Your task to perform on an android device: Open privacy settings Image 0: 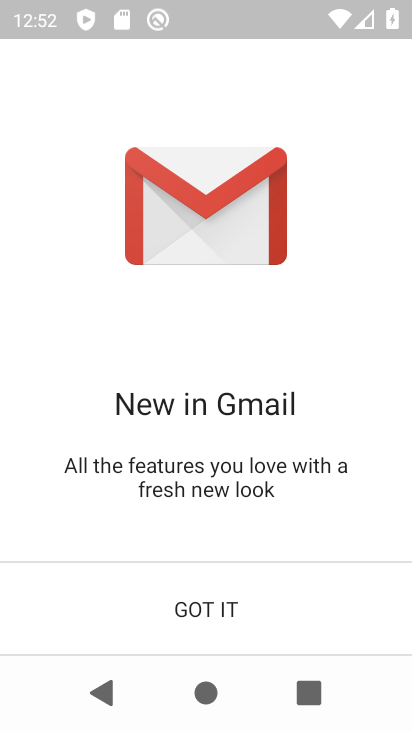
Step 0: press home button
Your task to perform on an android device: Open privacy settings Image 1: 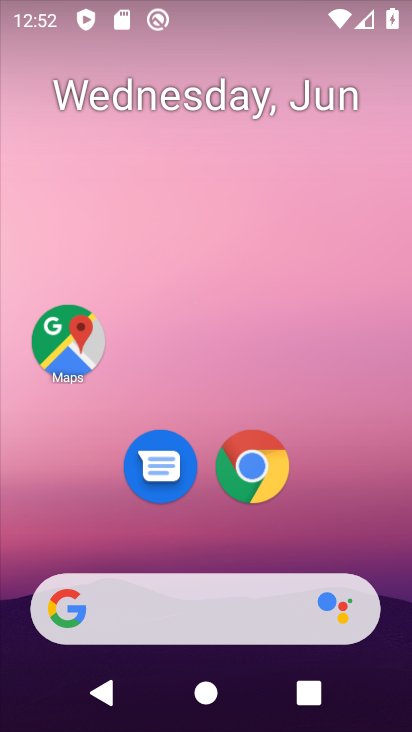
Step 1: click (243, 448)
Your task to perform on an android device: Open privacy settings Image 2: 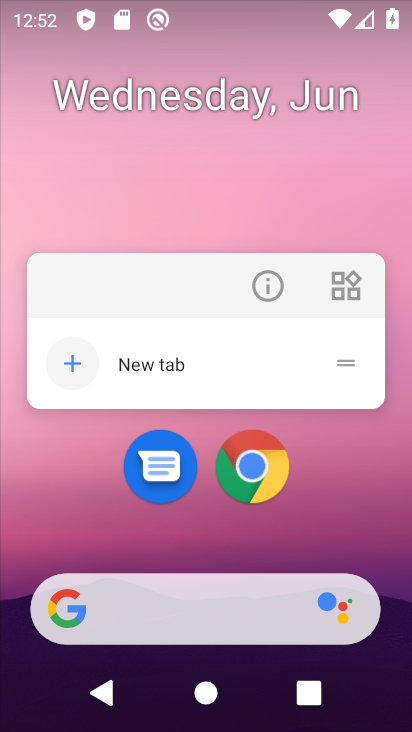
Step 2: click (254, 461)
Your task to perform on an android device: Open privacy settings Image 3: 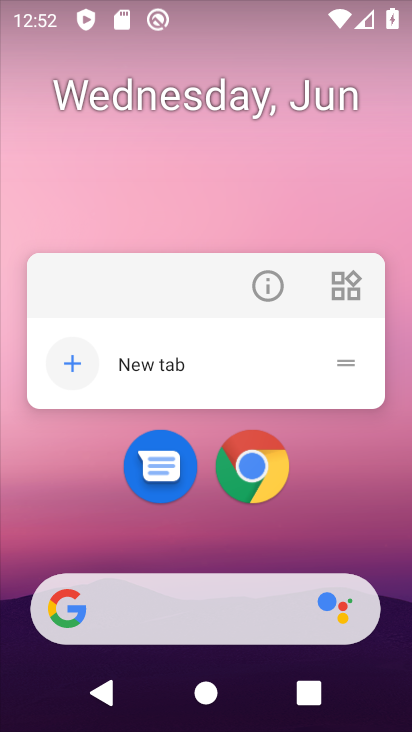
Step 3: click (243, 480)
Your task to perform on an android device: Open privacy settings Image 4: 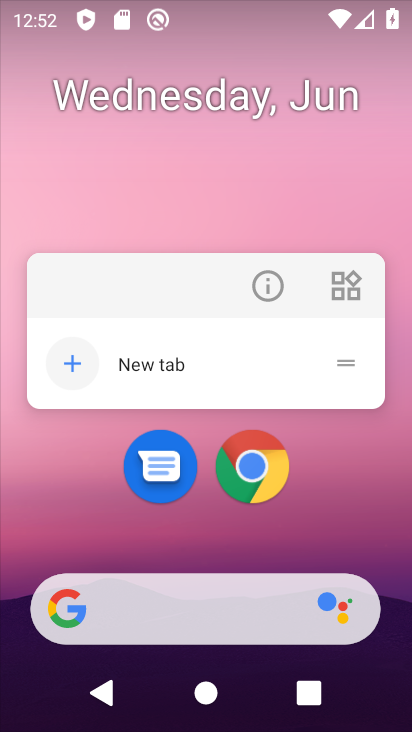
Step 4: click (257, 492)
Your task to perform on an android device: Open privacy settings Image 5: 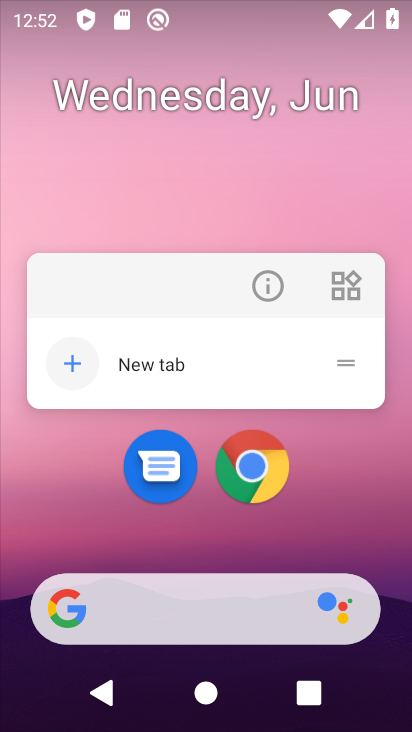
Step 5: click (262, 484)
Your task to perform on an android device: Open privacy settings Image 6: 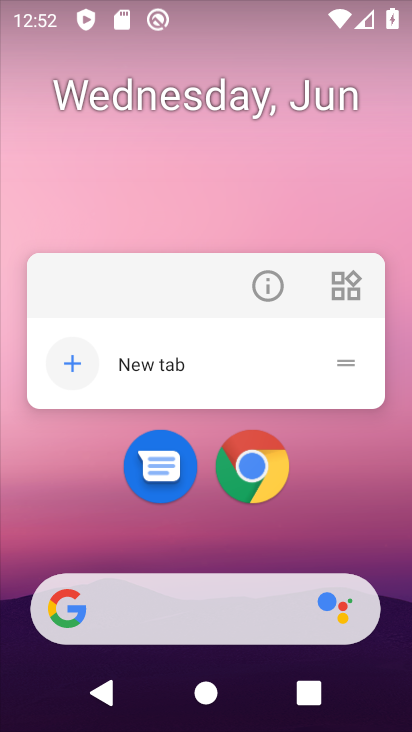
Step 6: click (253, 470)
Your task to perform on an android device: Open privacy settings Image 7: 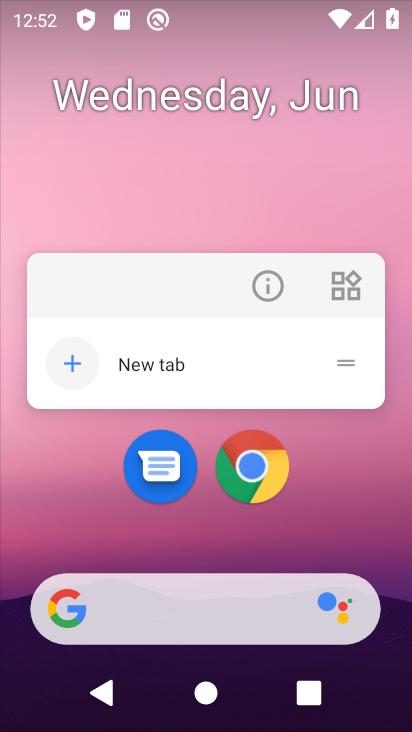
Step 7: click (257, 466)
Your task to perform on an android device: Open privacy settings Image 8: 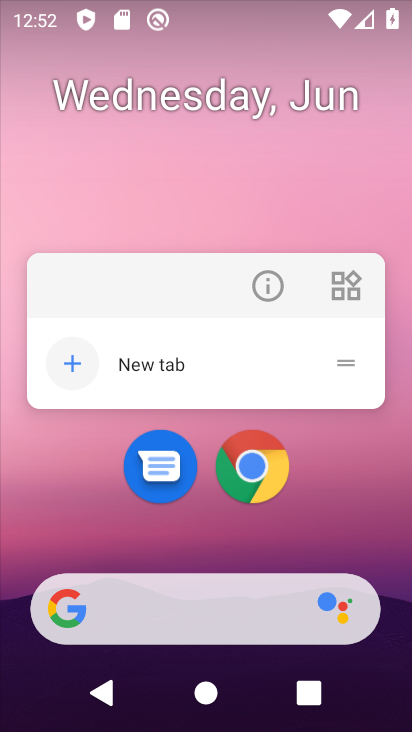
Step 8: click (270, 455)
Your task to perform on an android device: Open privacy settings Image 9: 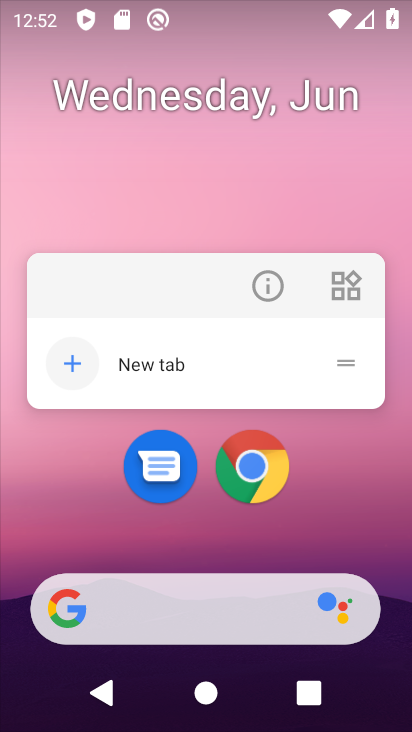
Step 9: click (255, 454)
Your task to perform on an android device: Open privacy settings Image 10: 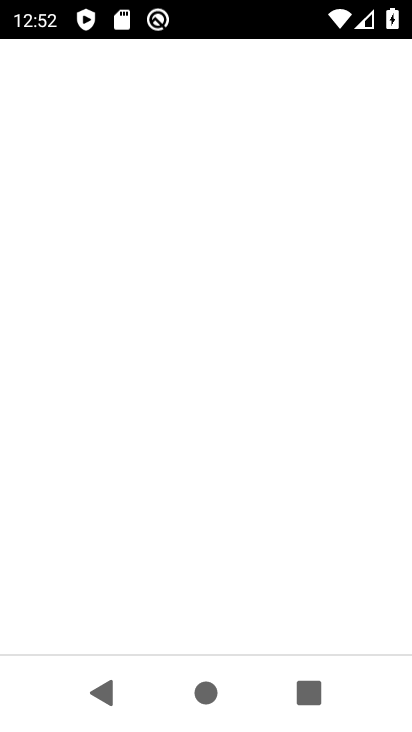
Step 10: click (255, 454)
Your task to perform on an android device: Open privacy settings Image 11: 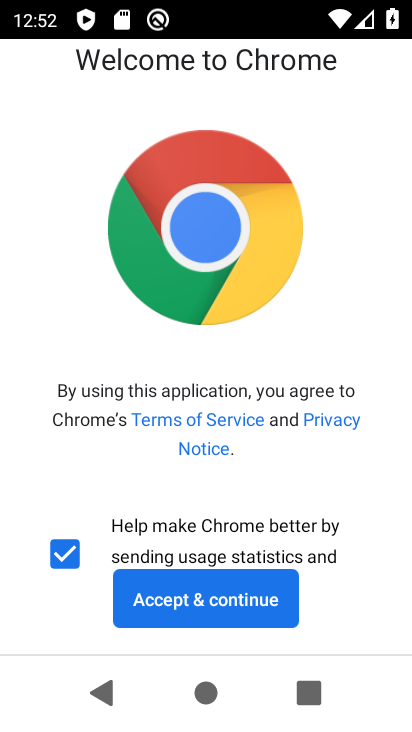
Step 11: click (245, 619)
Your task to perform on an android device: Open privacy settings Image 12: 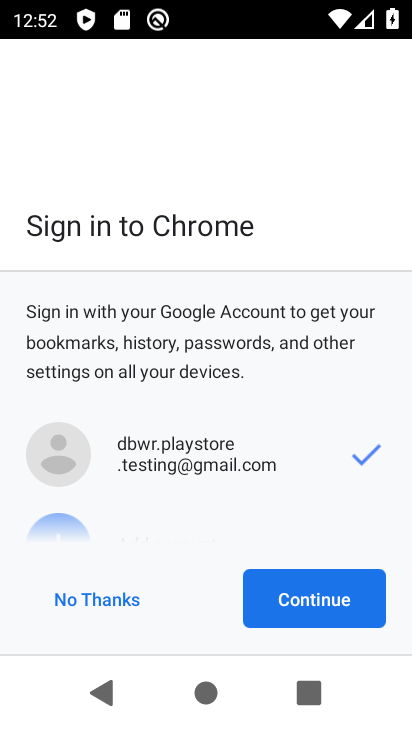
Step 12: click (281, 605)
Your task to perform on an android device: Open privacy settings Image 13: 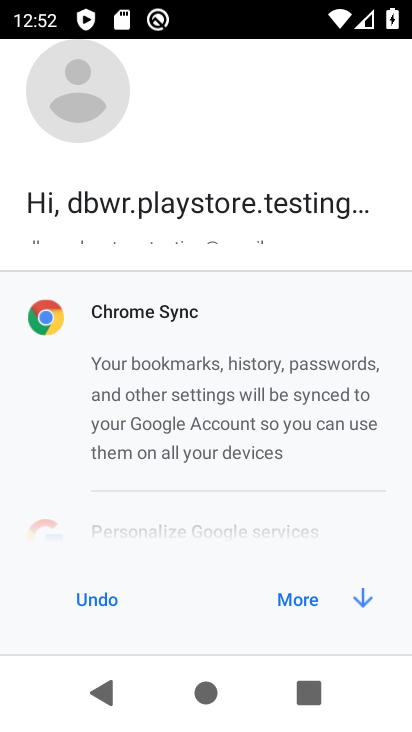
Step 13: click (340, 612)
Your task to perform on an android device: Open privacy settings Image 14: 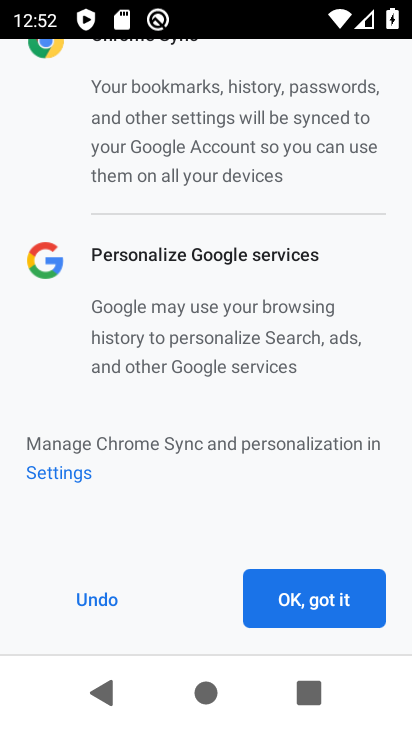
Step 14: click (356, 576)
Your task to perform on an android device: Open privacy settings Image 15: 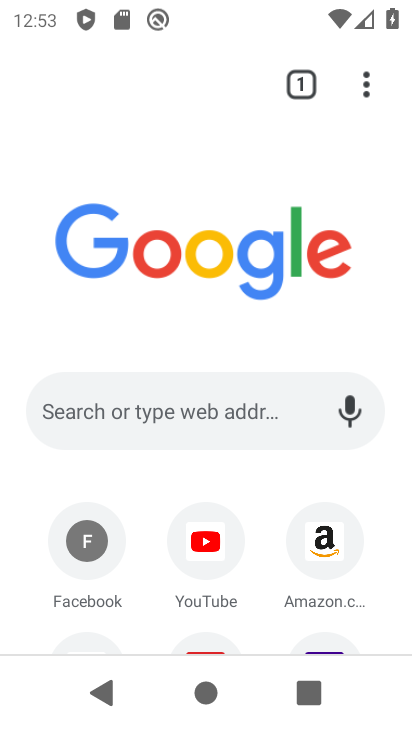
Step 15: drag from (372, 111) to (278, 501)
Your task to perform on an android device: Open privacy settings Image 16: 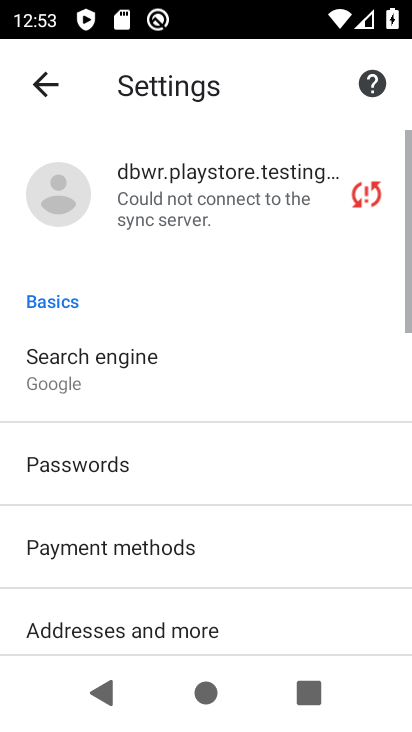
Step 16: drag from (146, 568) to (259, 200)
Your task to perform on an android device: Open privacy settings Image 17: 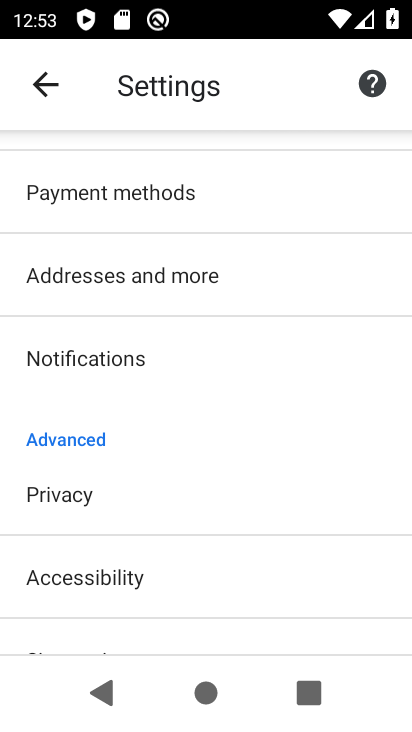
Step 17: click (178, 502)
Your task to perform on an android device: Open privacy settings Image 18: 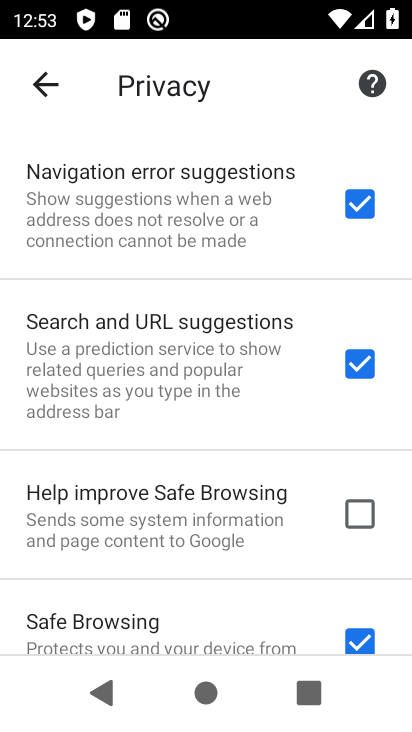
Step 18: task complete